Your task to perform on an android device: change alarm snooze length Image 0: 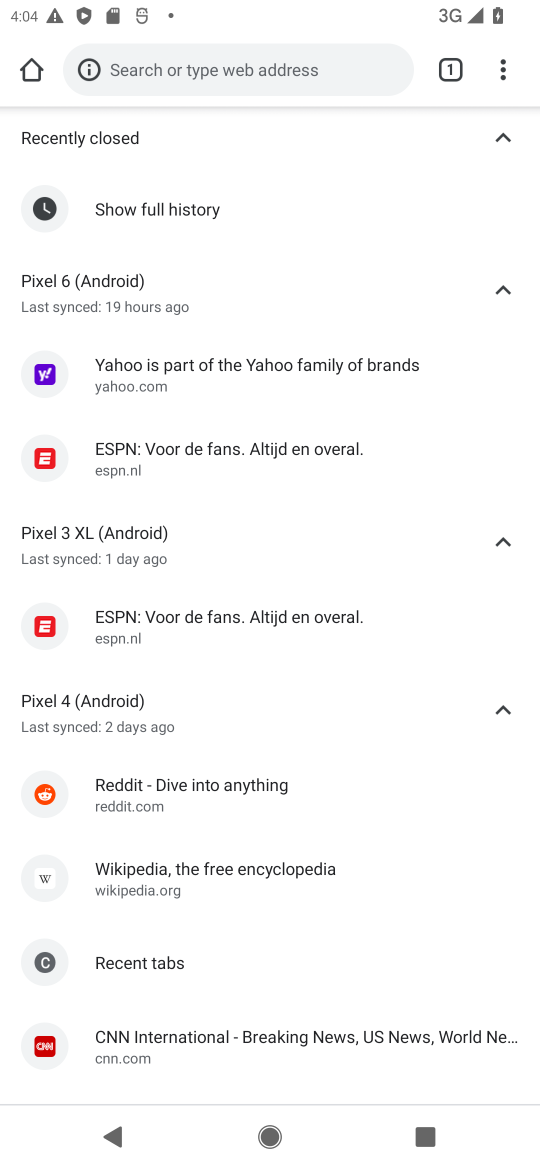
Step 0: task complete